Your task to perform on an android device: Clear the shopping cart on costco.com. Search for "macbook air" on costco.com, select the first entry, and add it to the cart. Image 0: 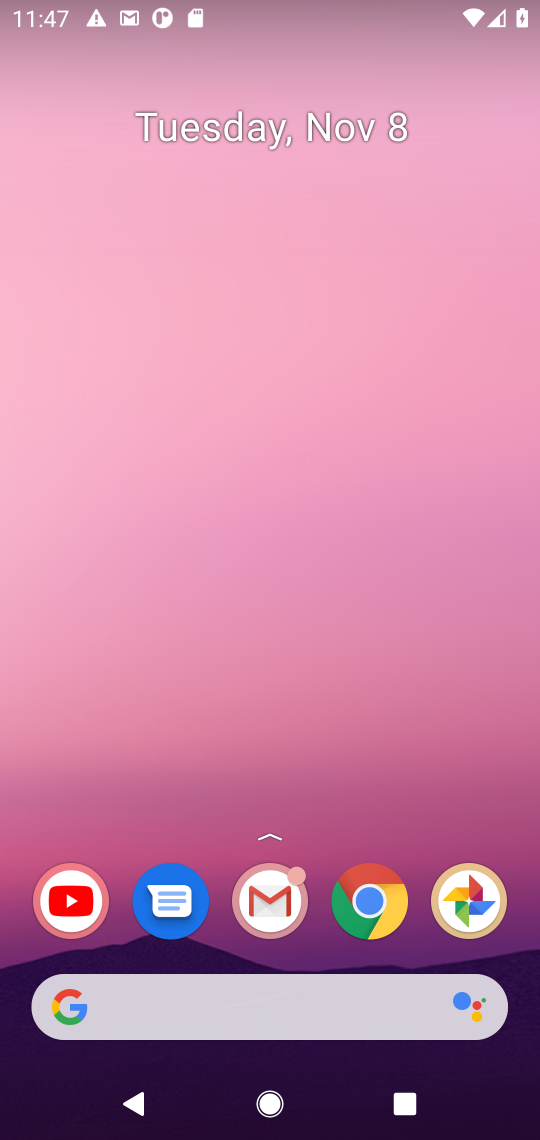
Step 0: click (364, 911)
Your task to perform on an android device: Clear the shopping cart on costco.com. Search for "macbook air" on costco.com, select the first entry, and add it to the cart. Image 1: 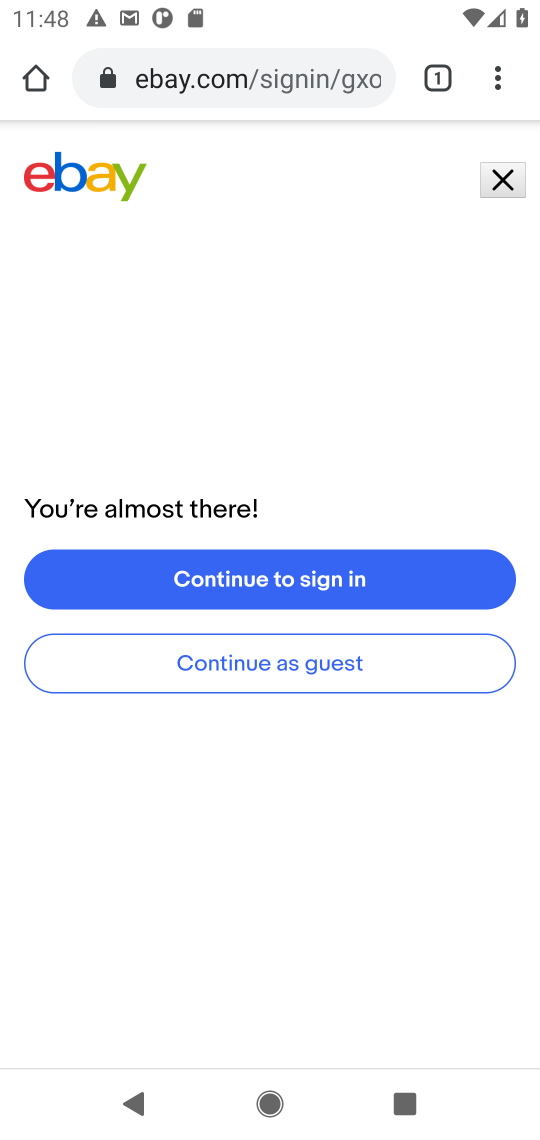
Step 1: click (288, 67)
Your task to perform on an android device: Clear the shopping cart on costco.com. Search for "macbook air" on costco.com, select the first entry, and add it to the cart. Image 2: 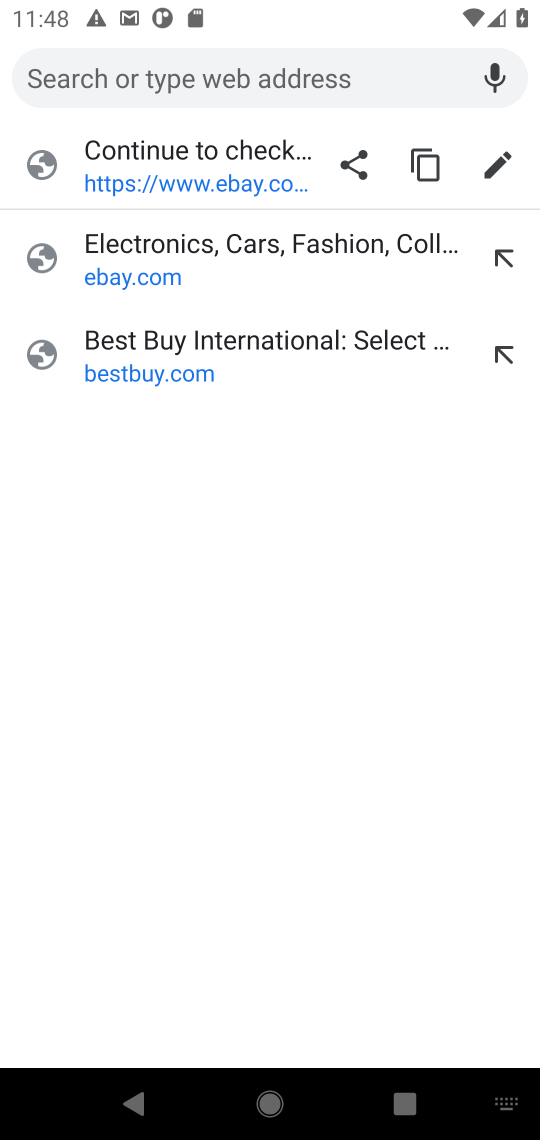
Step 2: type "costco.com"
Your task to perform on an android device: Clear the shopping cart on costco.com. Search for "macbook air" on costco.com, select the first entry, and add it to the cart. Image 3: 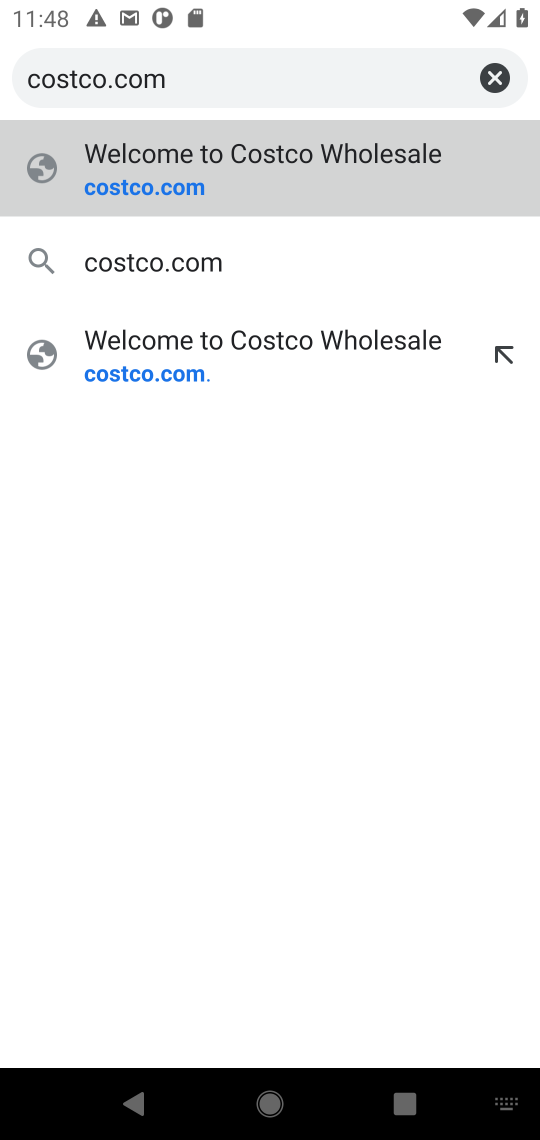
Step 3: press enter
Your task to perform on an android device: Clear the shopping cart on costco.com. Search for "macbook air" on costco.com, select the first entry, and add it to the cart. Image 4: 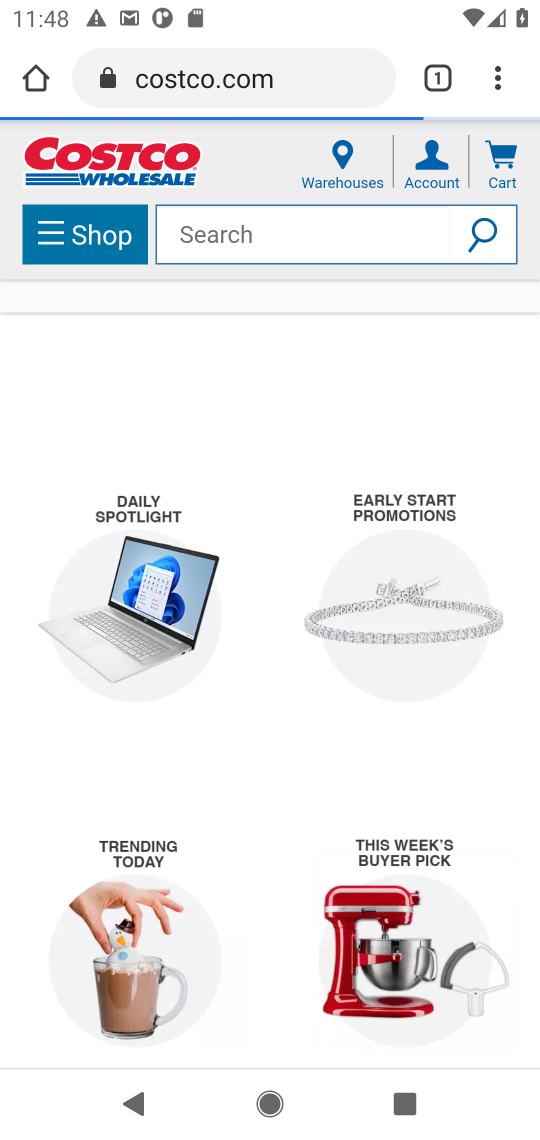
Step 4: click (502, 176)
Your task to perform on an android device: Clear the shopping cart on costco.com. Search for "macbook air" on costco.com, select the first entry, and add it to the cart. Image 5: 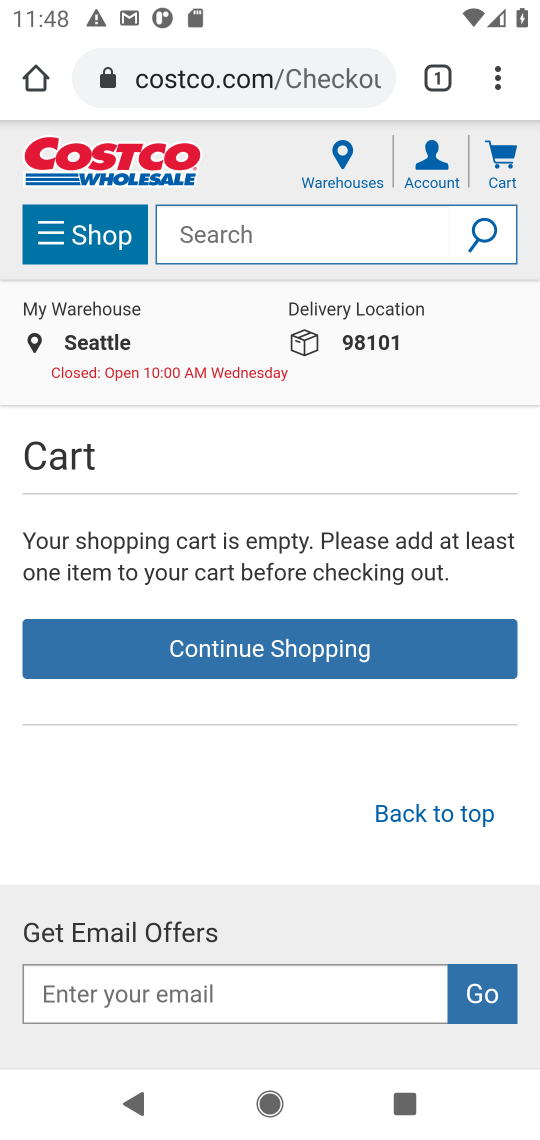
Step 5: click (282, 236)
Your task to perform on an android device: Clear the shopping cart on costco.com. Search for "macbook air" on costco.com, select the first entry, and add it to the cart. Image 6: 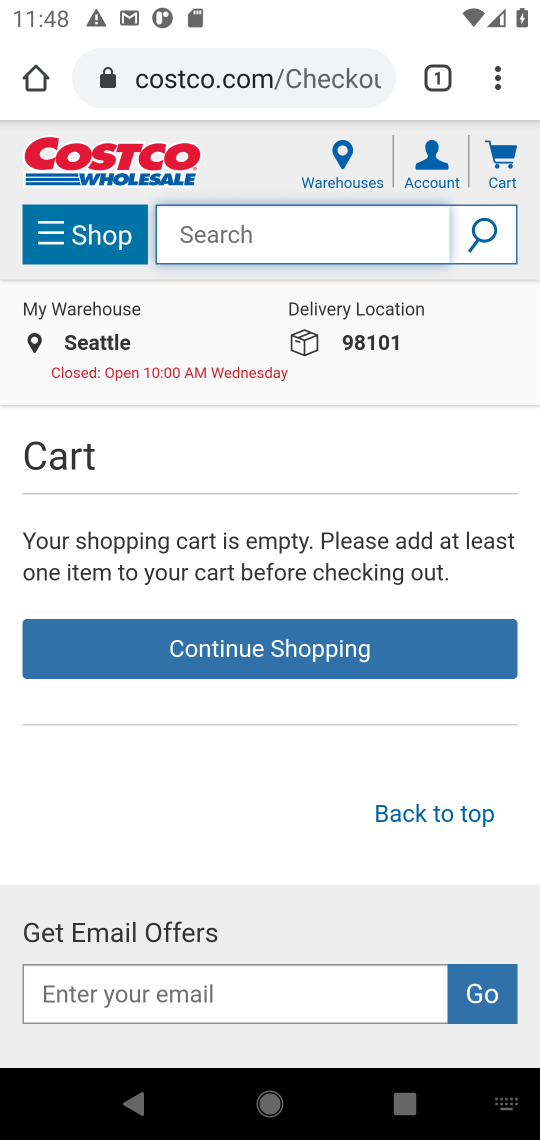
Step 6: type "macbook air"
Your task to perform on an android device: Clear the shopping cart on costco.com. Search for "macbook air" on costco.com, select the first entry, and add it to the cart. Image 7: 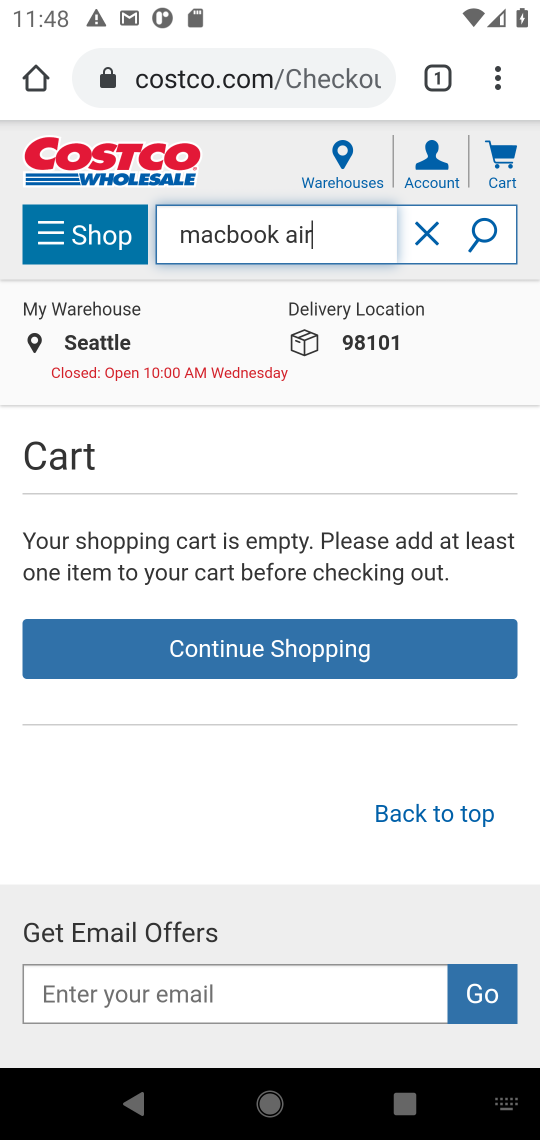
Step 7: press enter
Your task to perform on an android device: Clear the shopping cart on costco.com. Search for "macbook air" on costco.com, select the first entry, and add it to the cart. Image 8: 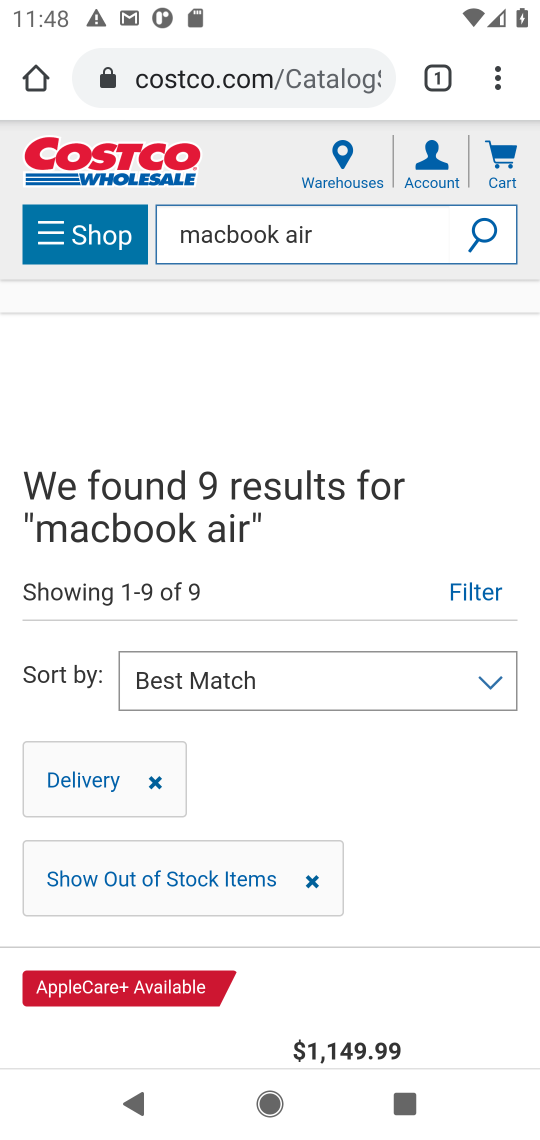
Step 8: drag from (428, 615) to (443, 377)
Your task to perform on an android device: Clear the shopping cart on costco.com. Search for "macbook air" on costco.com, select the first entry, and add it to the cart. Image 9: 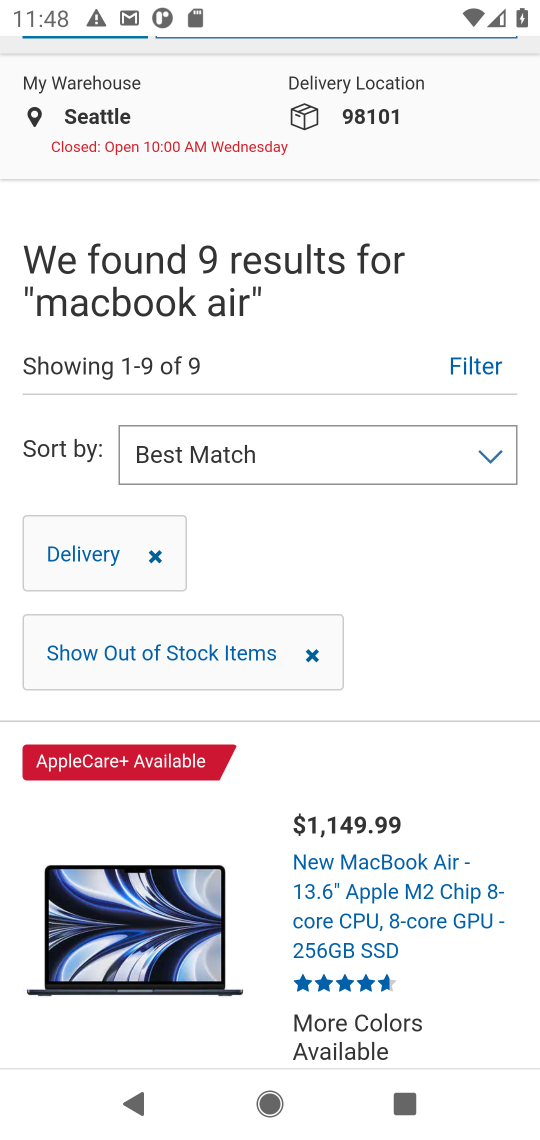
Step 9: click (120, 926)
Your task to perform on an android device: Clear the shopping cart on costco.com. Search for "macbook air" on costco.com, select the first entry, and add it to the cart. Image 10: 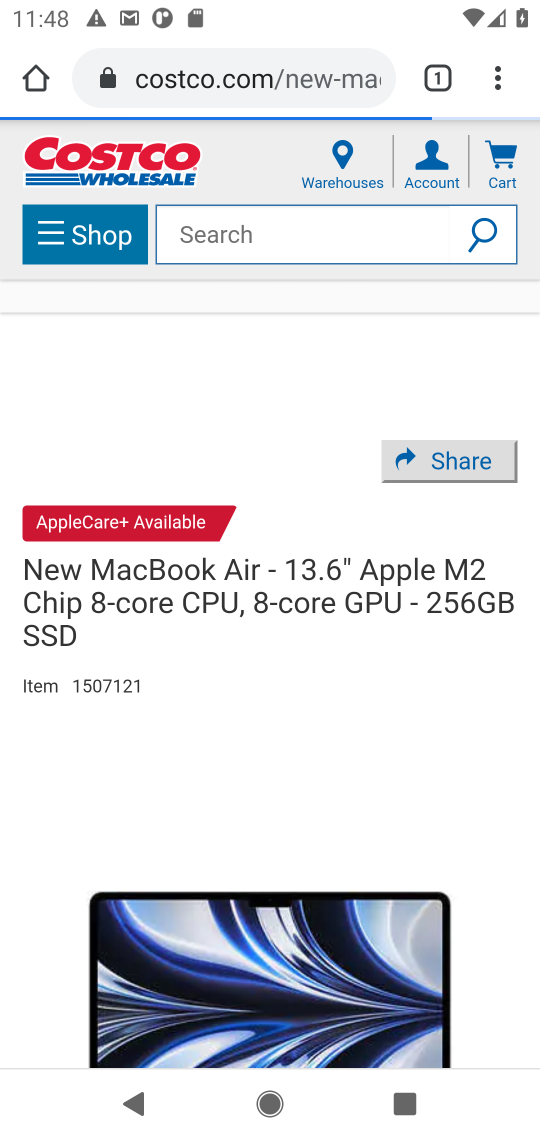
Step 10: drag from (475, 762) to (527, 853)
Your task to perform on an android device: Clear the shopping cart on costco.com. Search for "macbook air" on costco.com, select the first entry, and add it to the cart. Image 11: 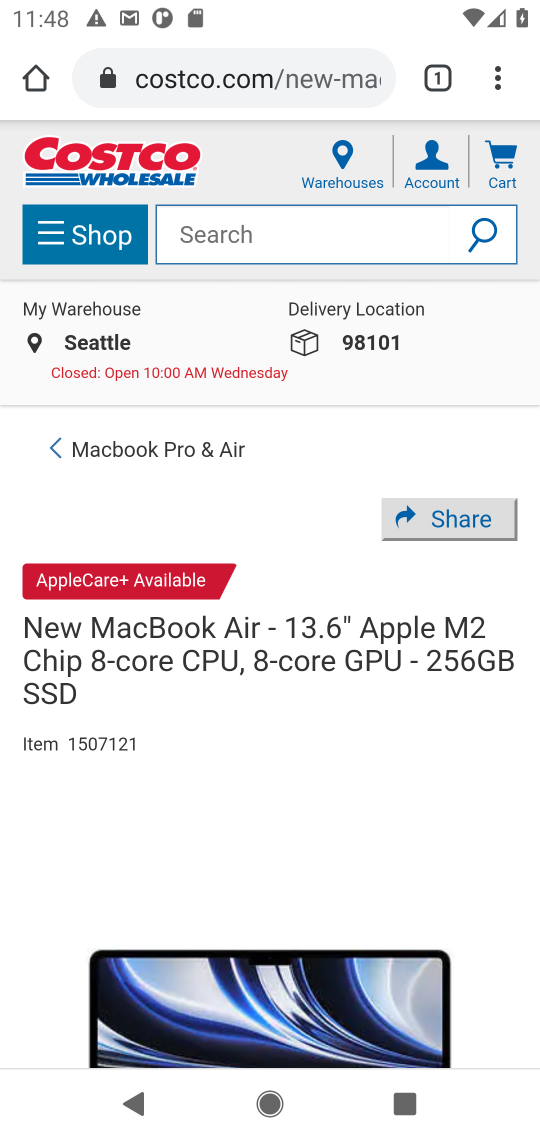
Step 11: drag from (446, 941) to (528, 275)
Your task to perform on an android device: Clear the shopping cart on costco.com. Search for "macbook air" on costco.com, select the first entry, and add it to the cart. Image 12: 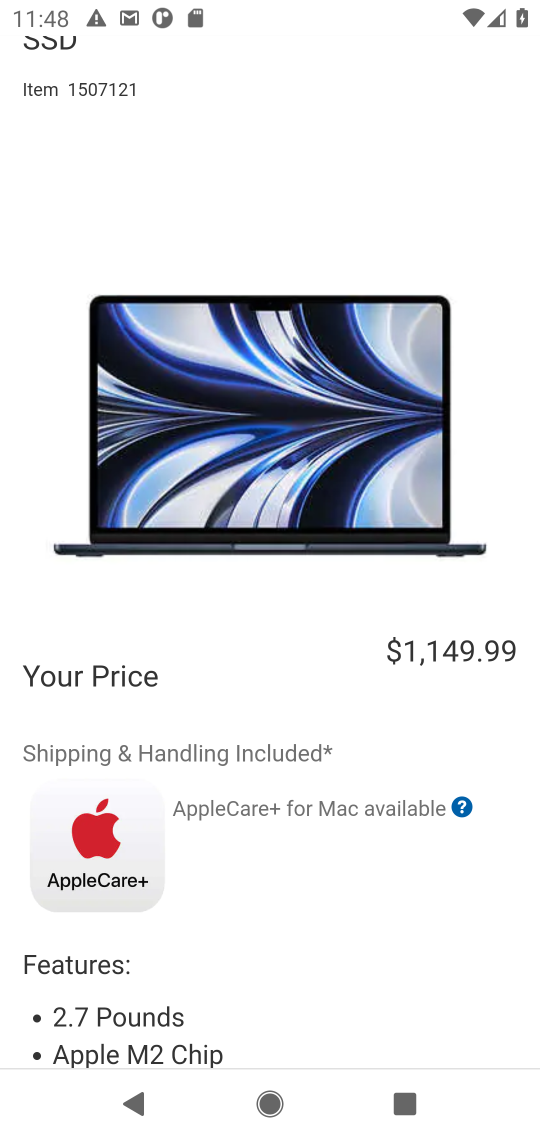
Step 12: drag from (431, 912) to (344, 225)
Your task to perform on an android device: Clear the shopping cart on costco.com. Search for "macbook air" on costco.com, select the first entry, and add it to the cart. Image 13: 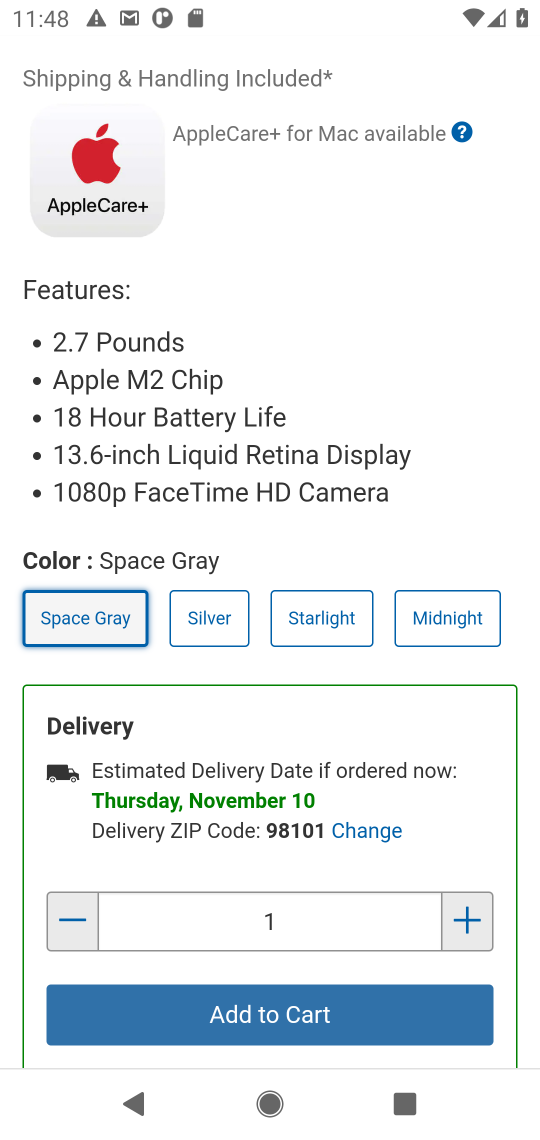
Step 13: click (307, 1008)
Your task to perform on an android device: Clear the shopping cart on costco.com. Search for "macbook air" on costco.com, select the first entry, and add it to the cart. Image 14: 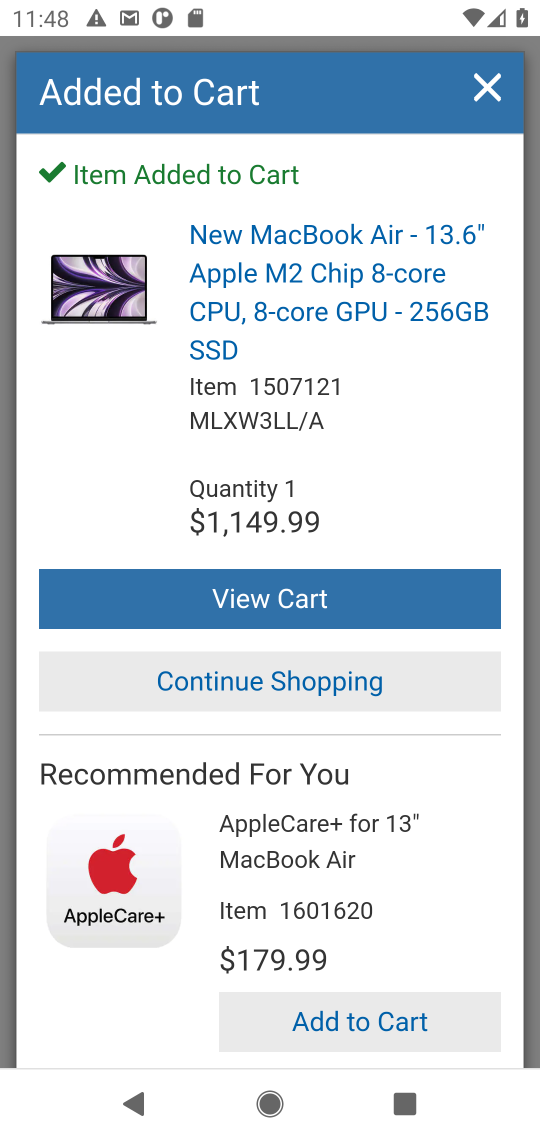
Step 14: task complete